Your task to perform on an android device: Open the web browser Image 0: 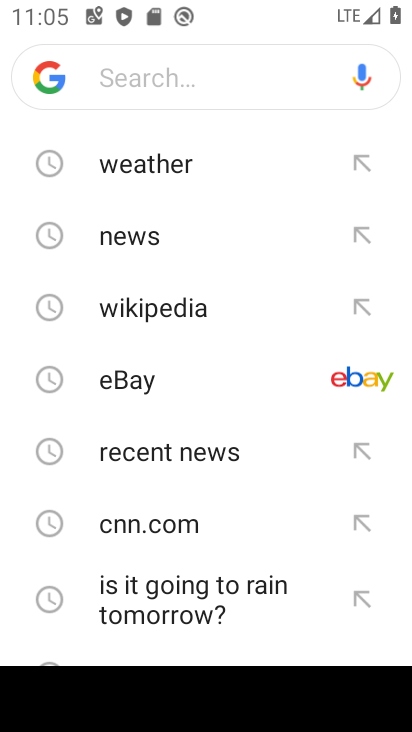
Step 0: press home button
Your task to perform on an android device: Open the web browser Image 1: 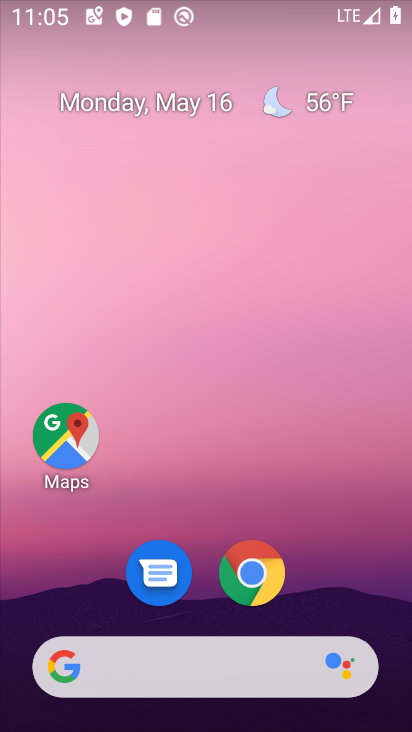
Step 1: click (267, 576)
Your task to perform on an android device: Open the web browser Image 2: 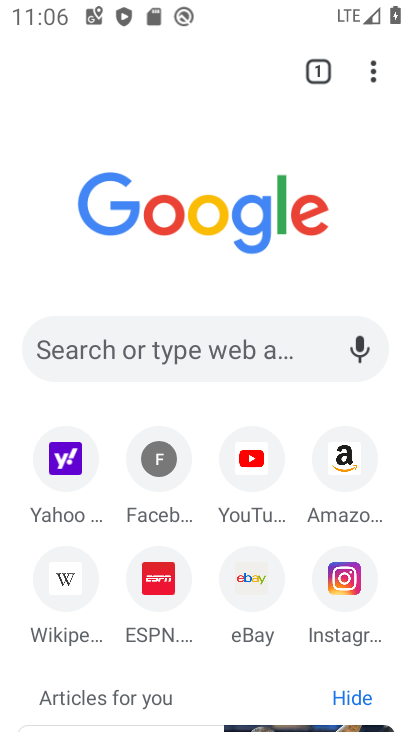
Step 2: task complete